Your task to perform on an android device: find which apps use the phone's location Image 0: 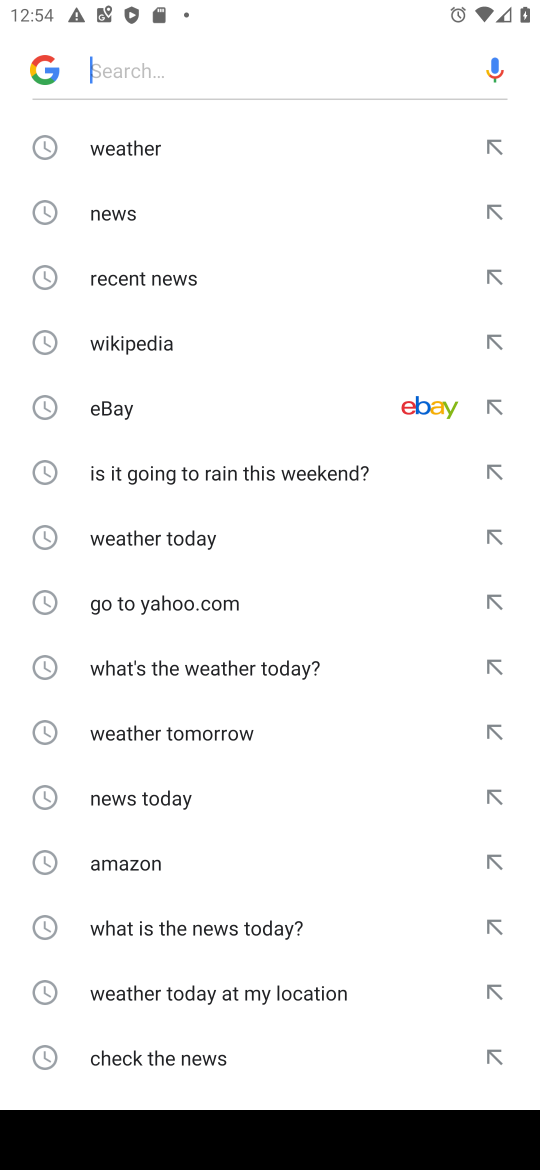
Step 0: press home button
Your task to perform on an android device: find which apps use the phone's location Image 1: 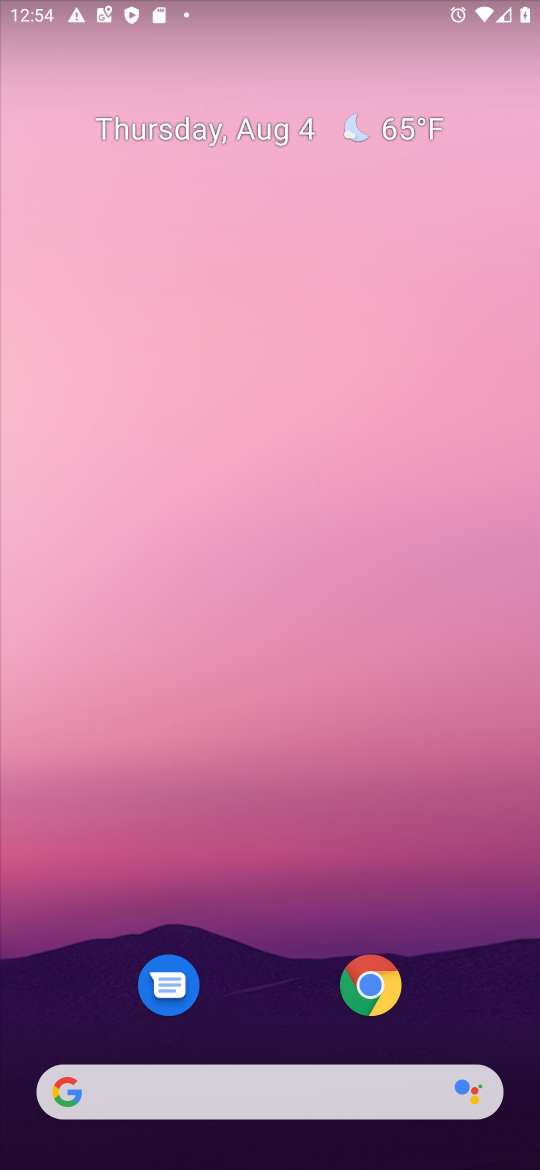
Step 1: click (245, 900)
Your task to perform on an android device: find which apps use the phone's location Image 2: 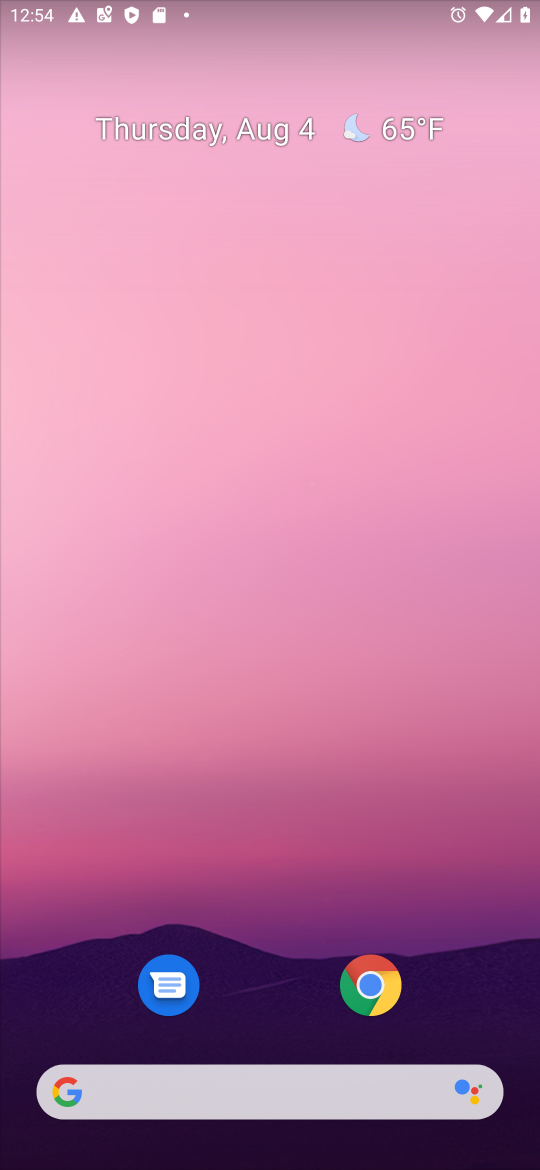
Step 2: drag from (245, 900) to (258, 20)
Your task to perform on an android device: find which apps use the phone's location Image 3: 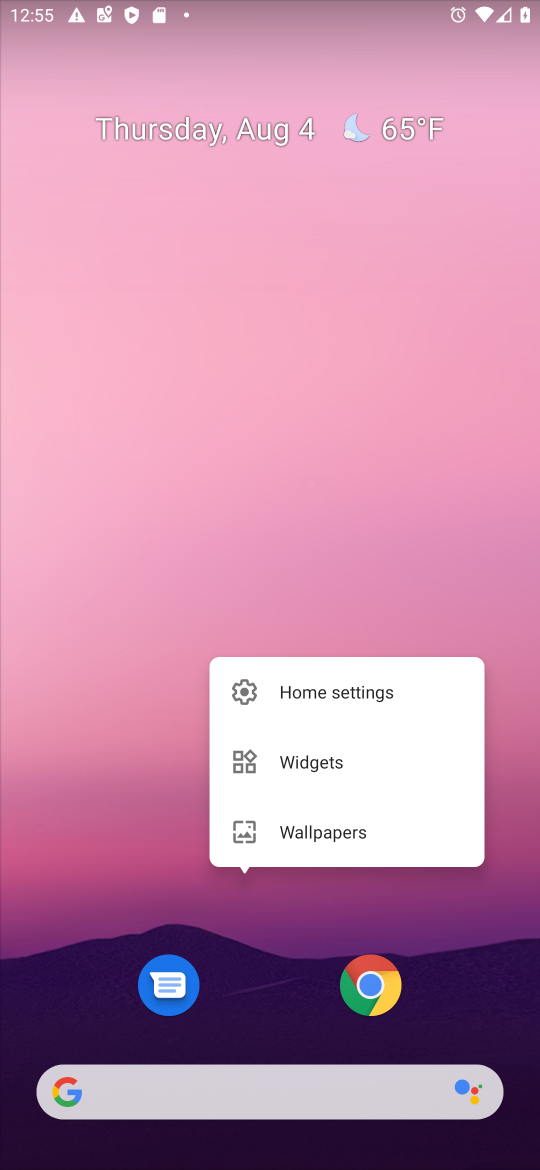
Step 3: click (109, 760)
Your task to perform on an android device: find which apps use the phone's location Image 4: 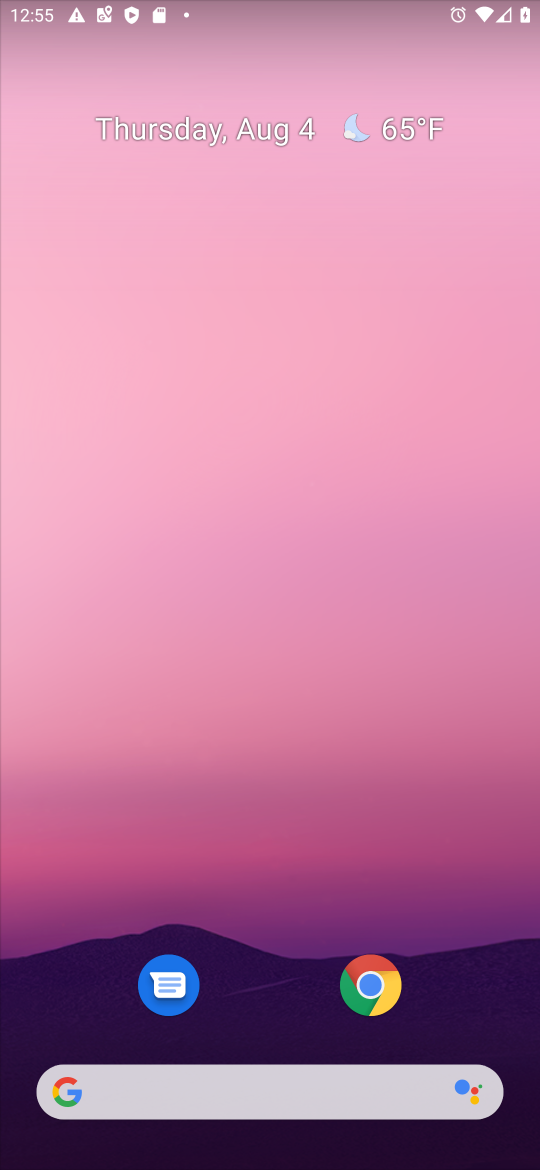
Step 4: drag from (267, 1029) to (274, 150)
Your task to perform on an android device: find which apps use the phone's location Image 5: 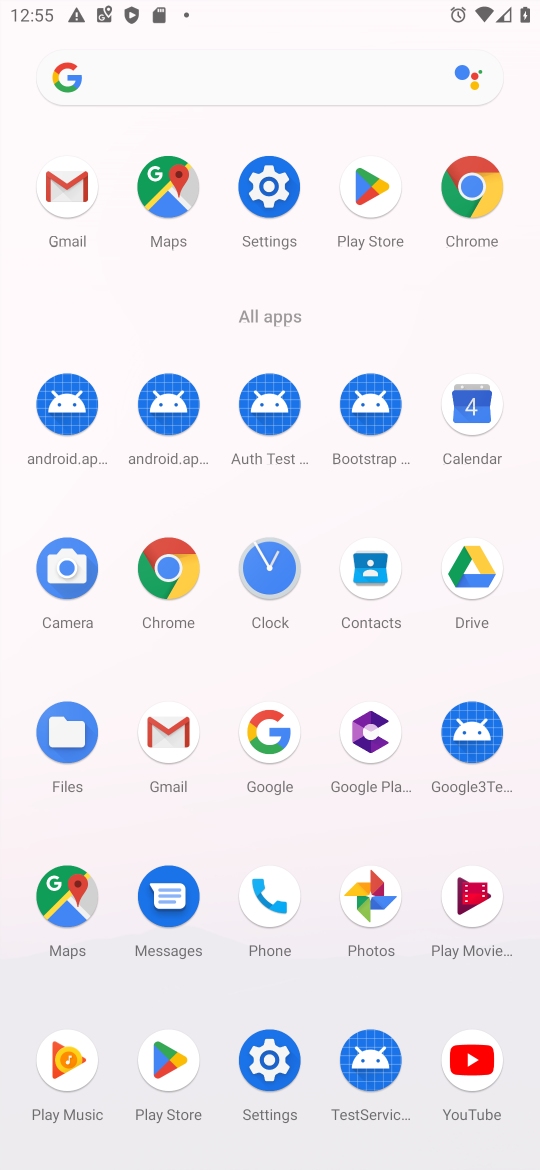
Step 5: click (268, 178)
Your task to perform on an android device: find which apps use the phone's location Image 6: 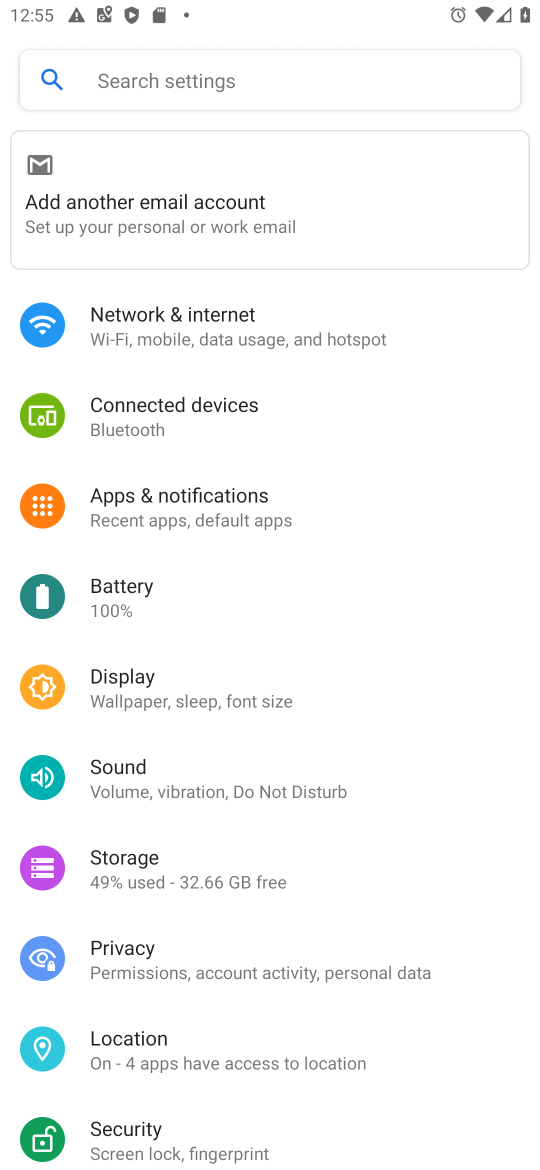
Step 6: click (145, 1040)
Your task to perform on an android device: find which apps use the phone's location Image 7: 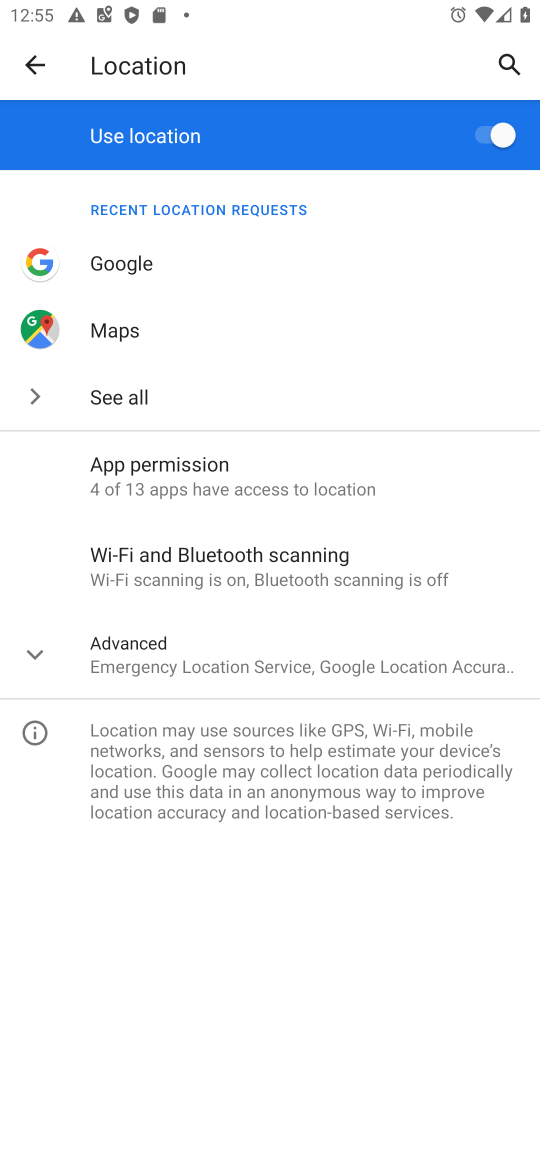
Step 7: click (119, 405)
Your task to perform on an android device: find which apps use the phone's location Image 8: 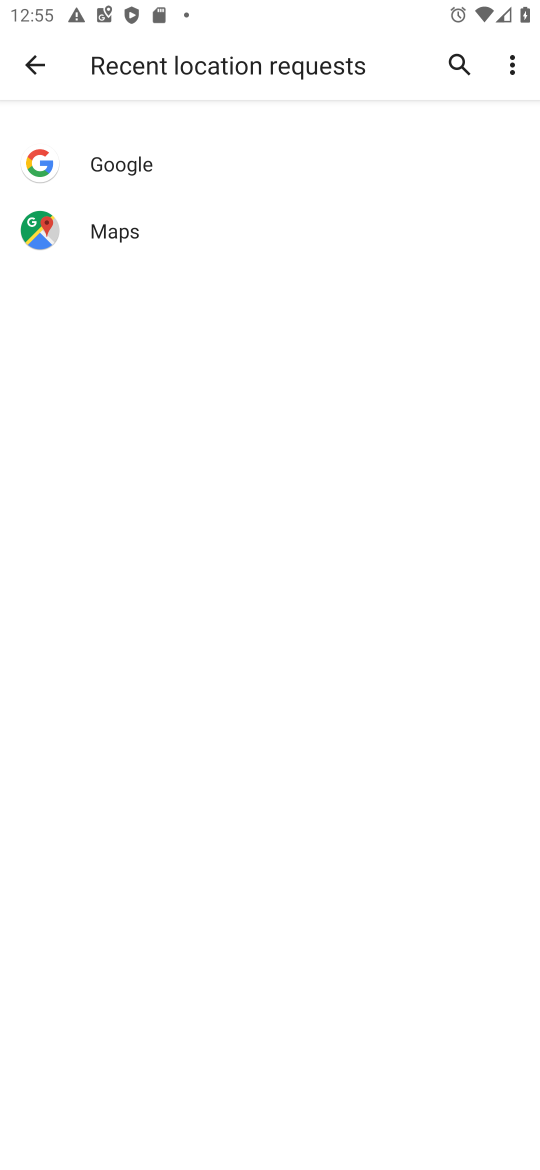
Step 8: task complete